Your task to perform on an android device: Open the stopwatch Image 0: 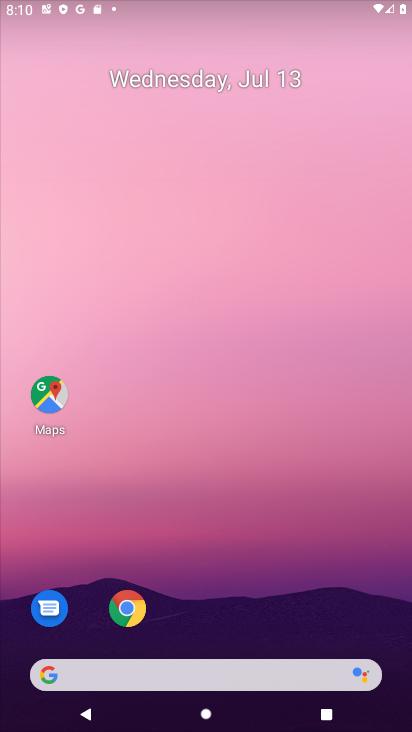
Step 0: drag from (249, 681) to (199, 226)
Your task to perform on an android device: Open the stopwatch Image 1: 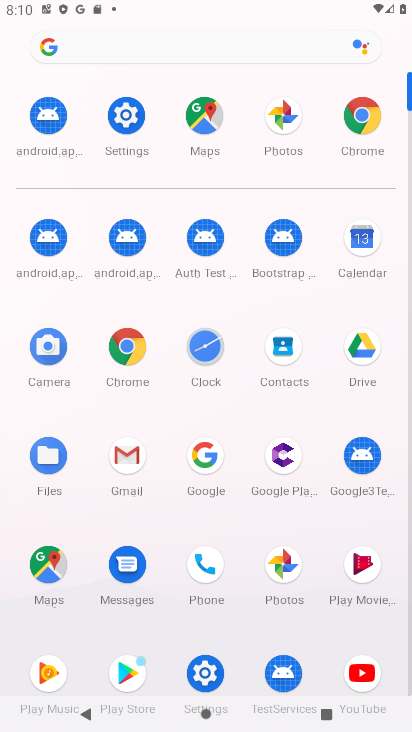
Step 1: click (210, 344)
Your task to perform on an android device: Open the stopwatch Image 2: 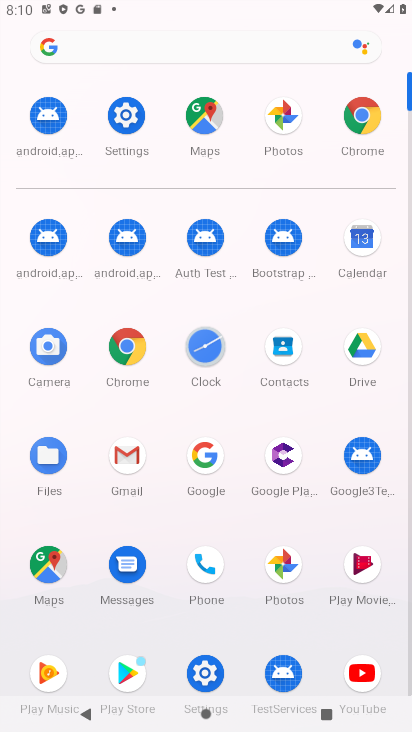
Step 2: click (208, 340)
Your task to perform on an android device: Open the stopwatch Image 3: 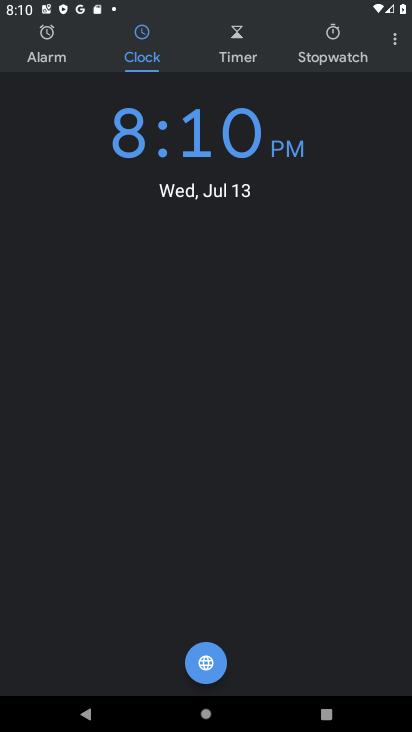
Step 3: click (335, 45)
Your task to perform on an android device: Open the stopwatch Image 4: 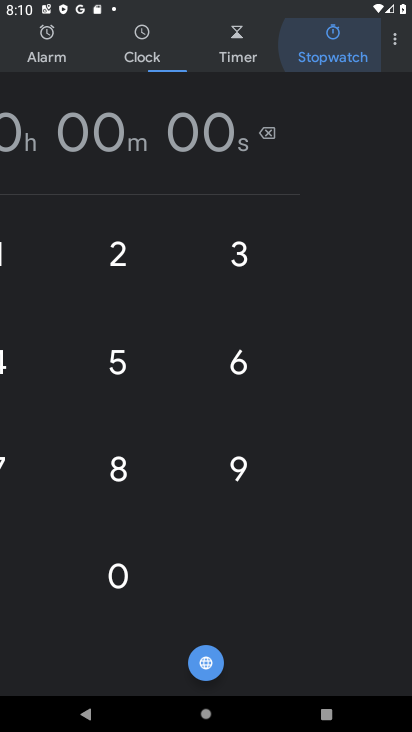
Step 4: click (335, 45)
Your task to perform on an android device: Open the stopwatch Image 5: 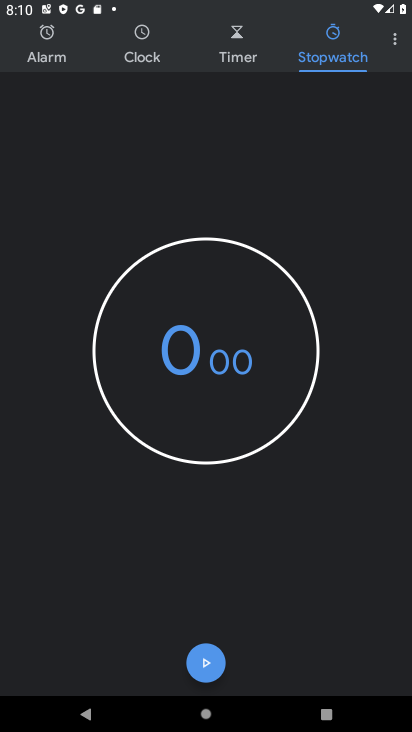
Step 5: click (339, 45)
Your task to perform on an android device: Open the stopwatch Image 6: 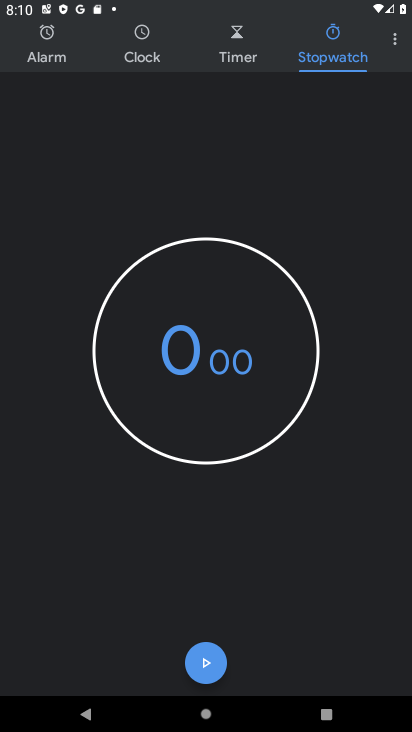
Step 6: click (198, 675)
Your task to perform on an android device: Open the stopwatch Image 7: 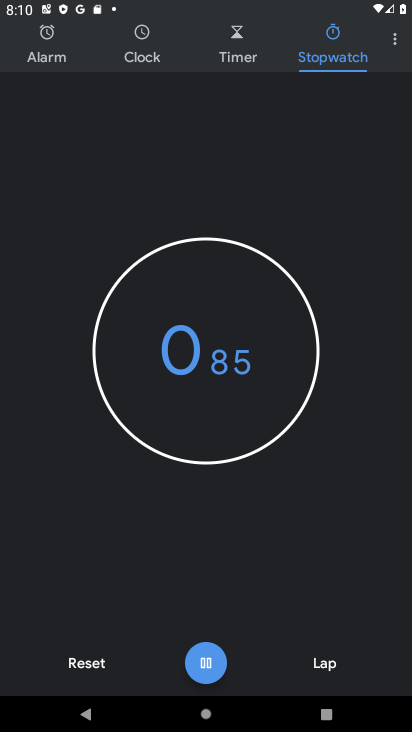
Step 7: click (202, 661)
Your task to perform on an android device: Open the stopwatch Image 8: 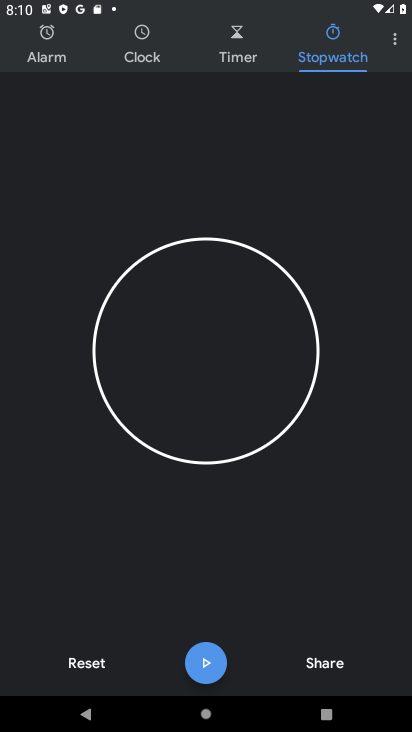
Step 8: click (203, 661)
Your task to perform on an android device: Open the stopwatch Image 9: 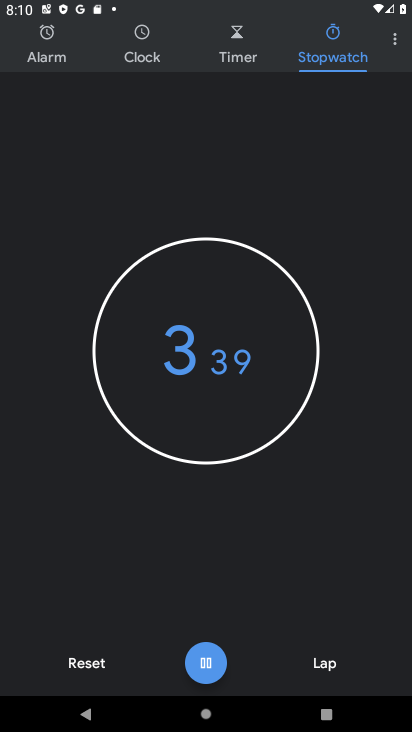
Step 9: click (195, 660)
Your task to perform on an android device: Open the stopwatch Image 10: 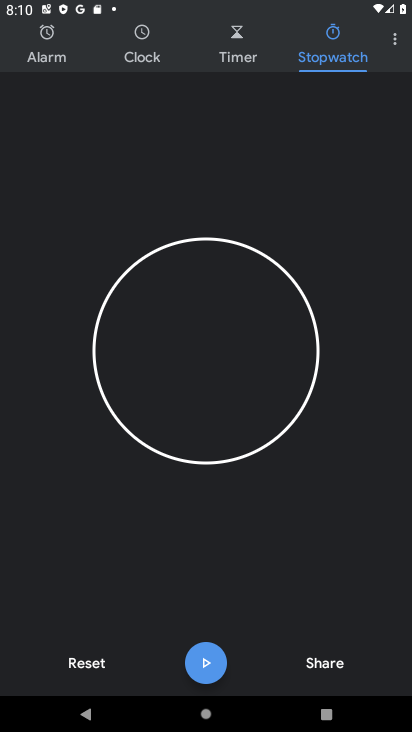
Step 10: task complete